Your task to perform on an android device: Open Youtube and go to "Your channel" Image 0: 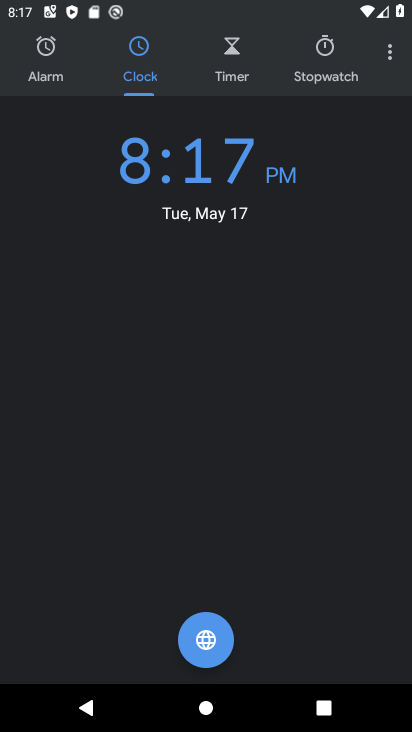
Step 0: press home button
Your task to perform on an android device: Open Youtube and go to "Your channel" Image 1: 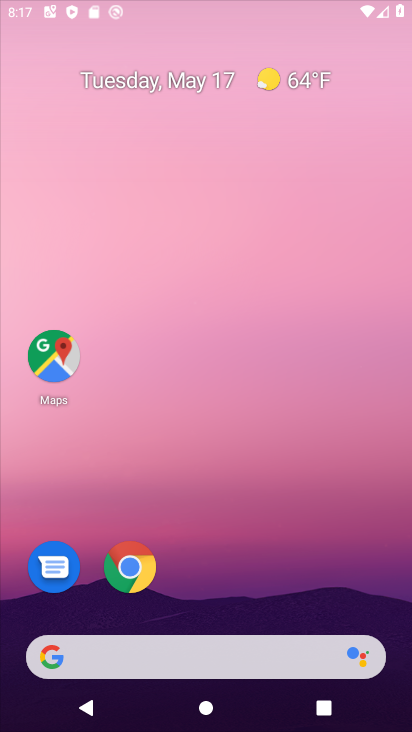
Step 1: drag from (347, 606) to (226, 37)
Your task to perform on an android device: Open Youtube and go to "Your channel" Image 2: 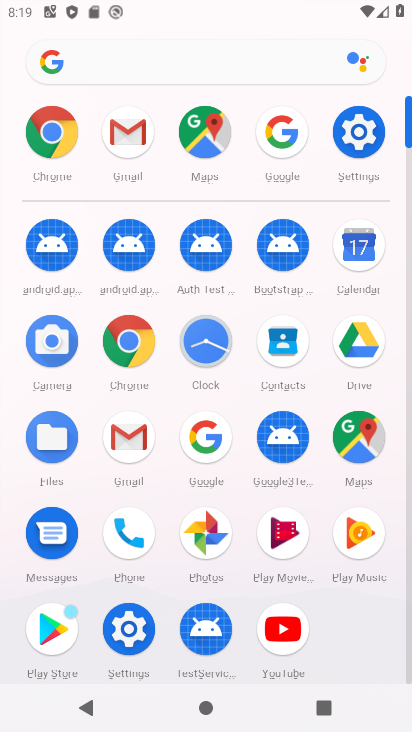
Step 2: click (280, 645)
Your task to perform on an android device: Open Youtube and go to "Your channel" Image 3: 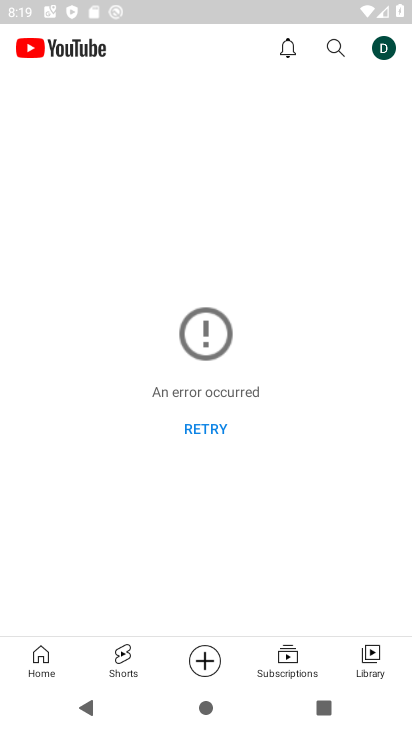
Step 3: click (365, 651)
Your task to perform on an android device: Open Youtube and go to "Your channel" Image 4: 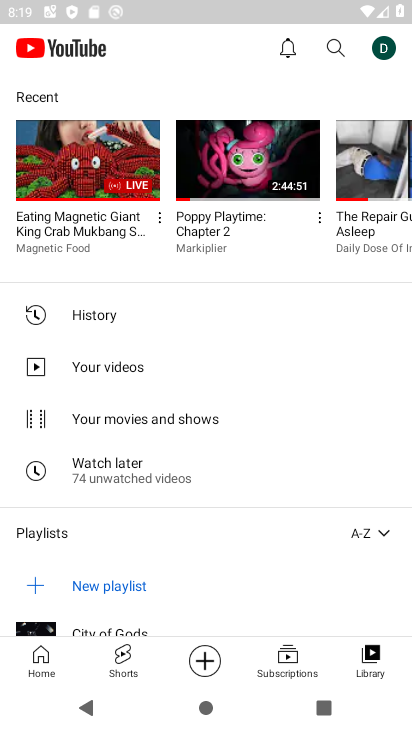
Step 4: click (379, 27)
Your task to perform on an android device: Open Youtube and go to "Your channel" Image 5: 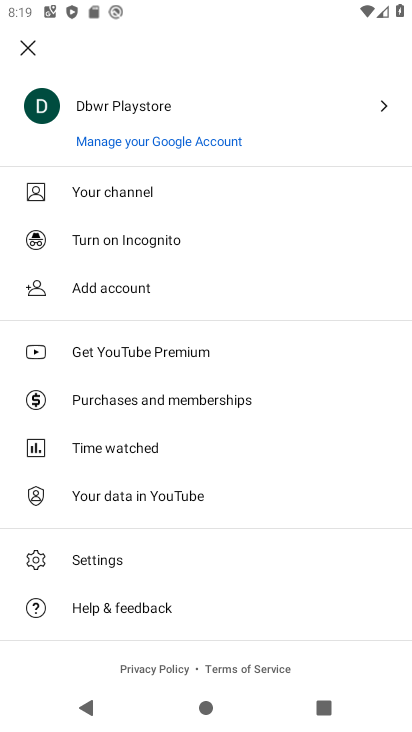
Step 5: click (91, 195)
Your task to perform on an android device: Open Youtube and go to "Your channel" Image 6: 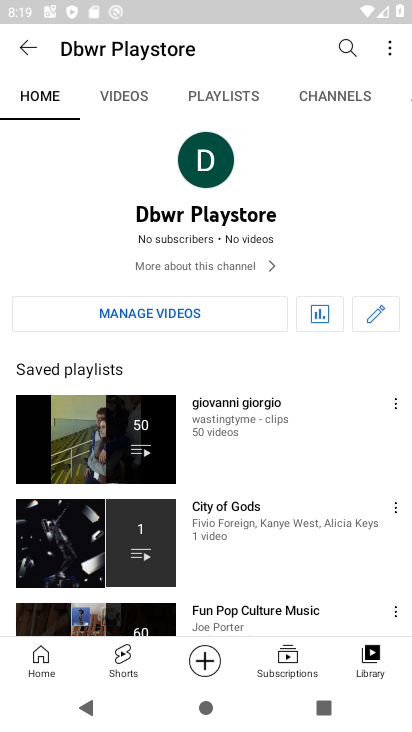
Step 6: task complete